Your task to perform on an android device: install app "Google Play Music" Image 0: 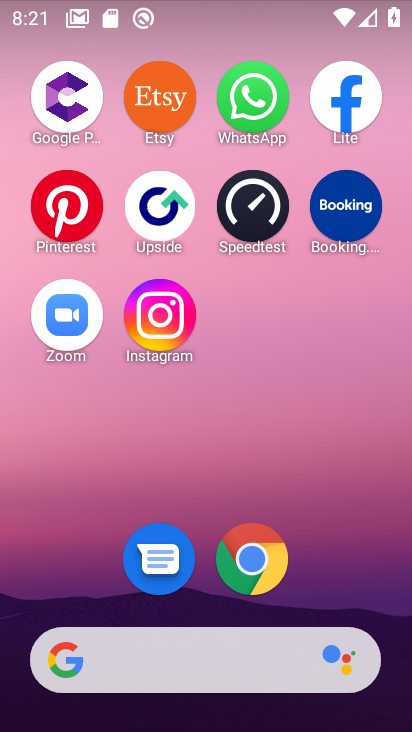
Step 0: drag from (186, 480) to (202, 37)
Your task to perform on an android device: install app "Google Play Music" Image 1: 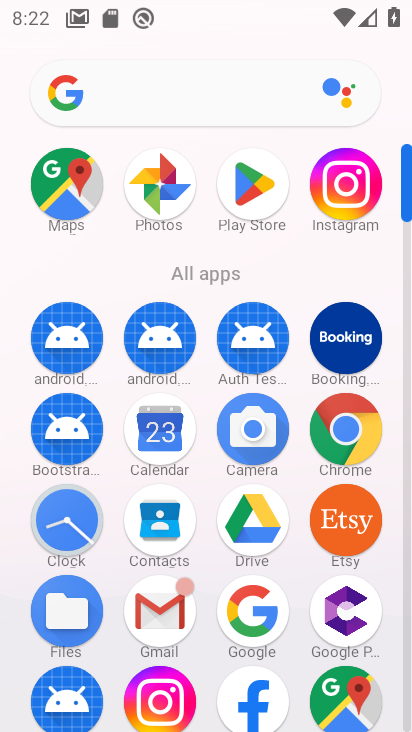
Step 1: click (250, 199)
Your task to perform on an android device: install app "Google Play Music" Image 2: 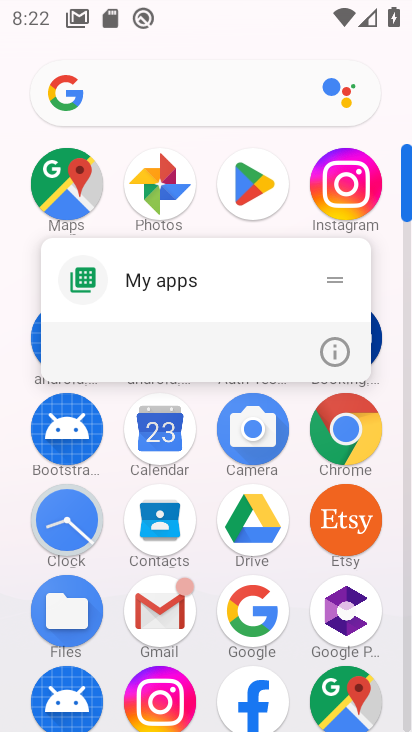
Step 2: click (247, 171)
Your task to perform on an android device: install app "Google Play Music" Image 3: 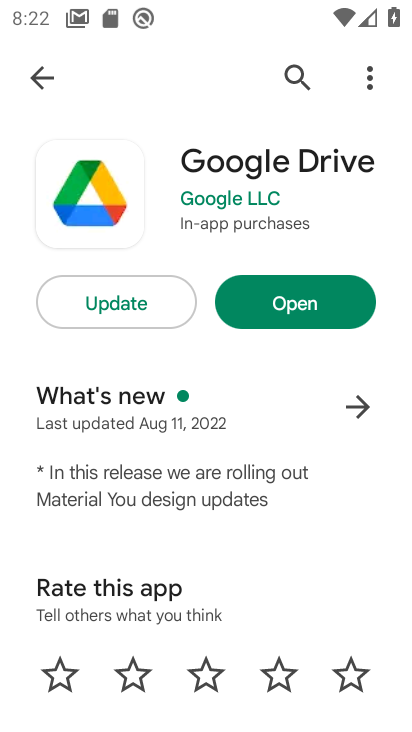
Step 3: click (300, 72)
Your task to perform on an android device: install app "Google Play Music" Image 4: 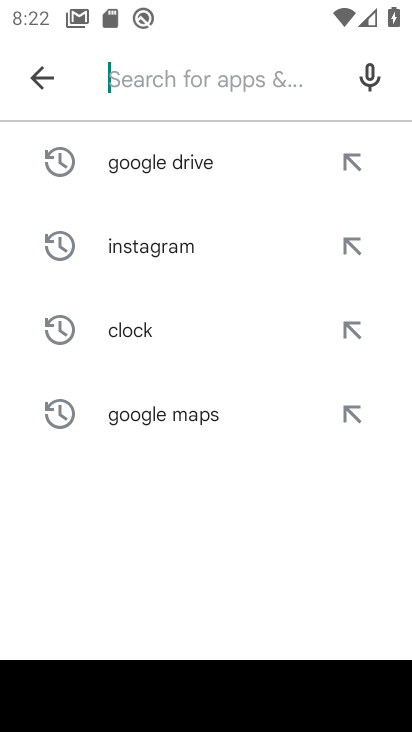
Step 4: type "Google Play Music"
Your task to perform on an android device: install app "Google Play Music" Image 5: 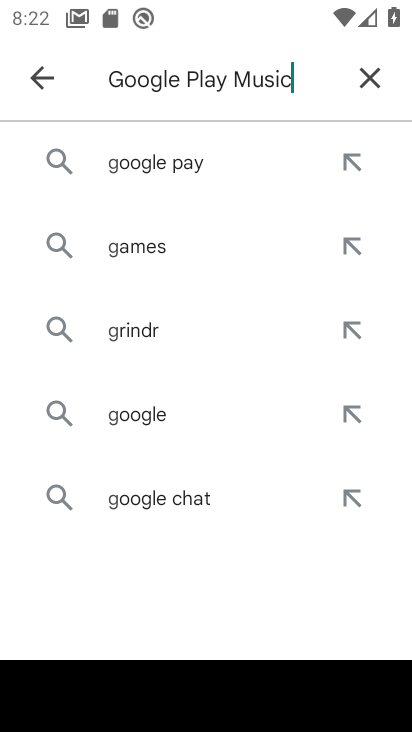
Step 5: type ""
Your task to perform on an android device: install app "Google Play Music" Image 6: 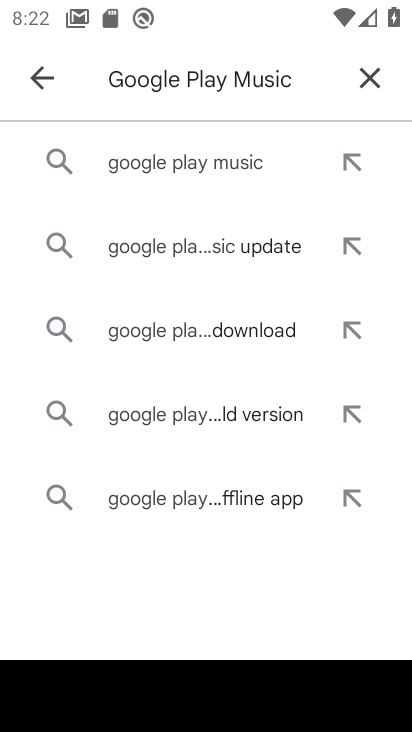
Step 6: click (140, 171)
Your task to perform on an android device: install app "Google Play Music" Image 7: 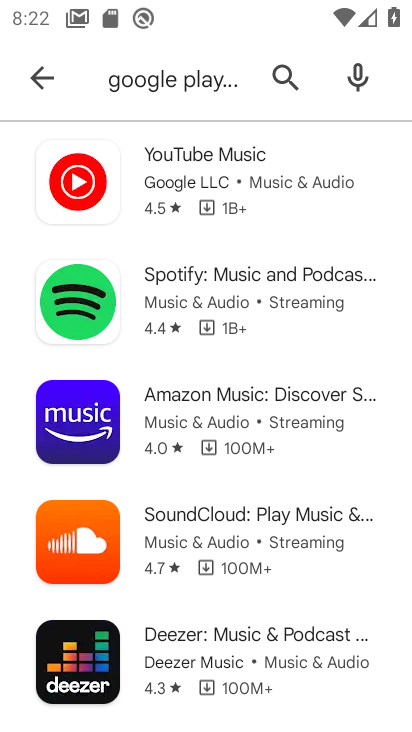
Step 7: task complete